Your task to perform on an android device: Open calendar and show me the second week of next month Image 0: 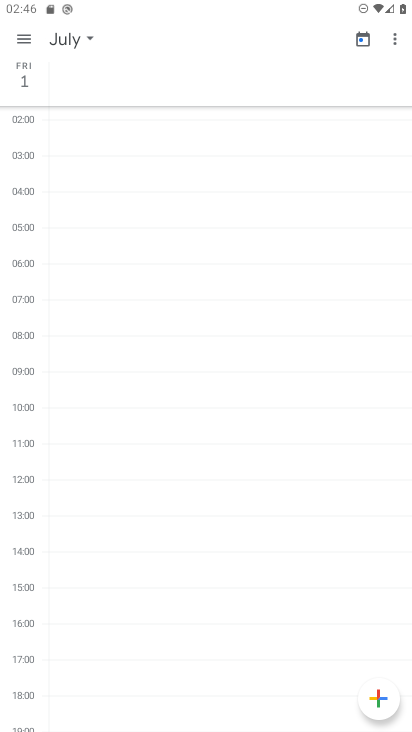
Step 0: press home button
Your task to perform on an android device: Open calendar and show me the second week of next month Image 1: 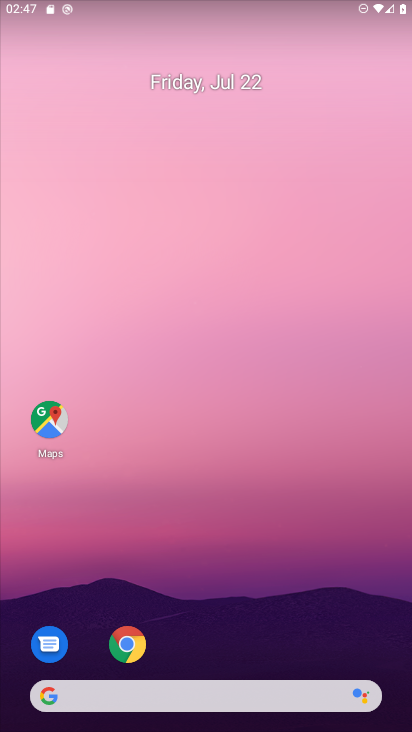
Step 1: drag from (183, 722) to (236, 103)
Your task to perform on an android device: Open calendar and show me the second week of next month Image 2: 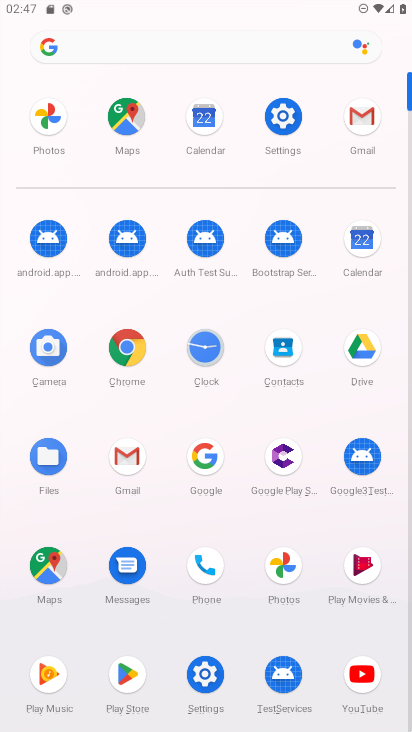
Step 2: click (362, 259)
Your task to perform on an android device: Open calendar and show me the second week of next month Image 3: 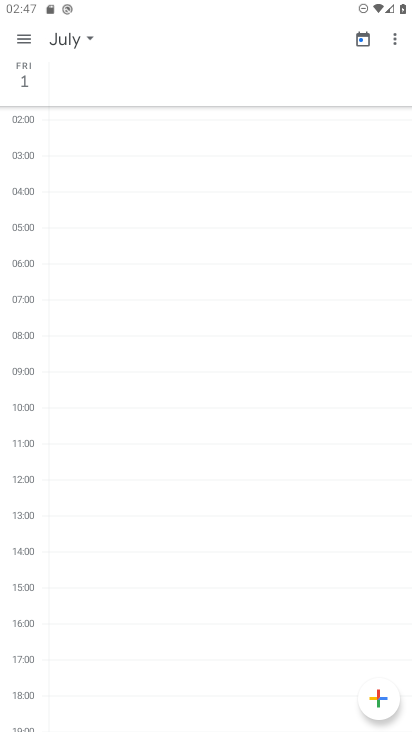
Step 3: click (64, 40)
Your task to perform on an android device: Open calendar and show me the second week of next month Image 4: 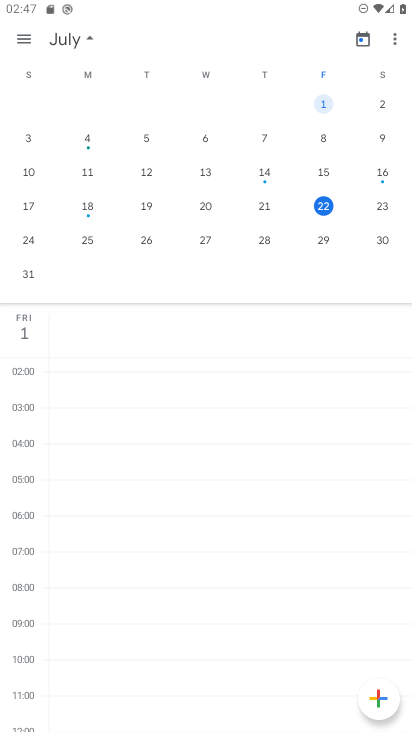
Step 4: drag from (331, 125) to (306, 0)
Your task to perform on an android device: Open calendar and show me the second week of next month Image 5: 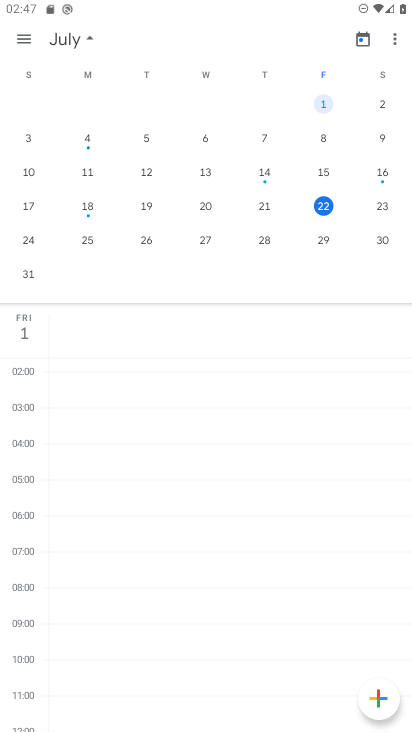
Step 5: drag from (372, 115) to (7, 125)
Your task to perform on an android device: Open calendar and show me the second week of next month Image 6: 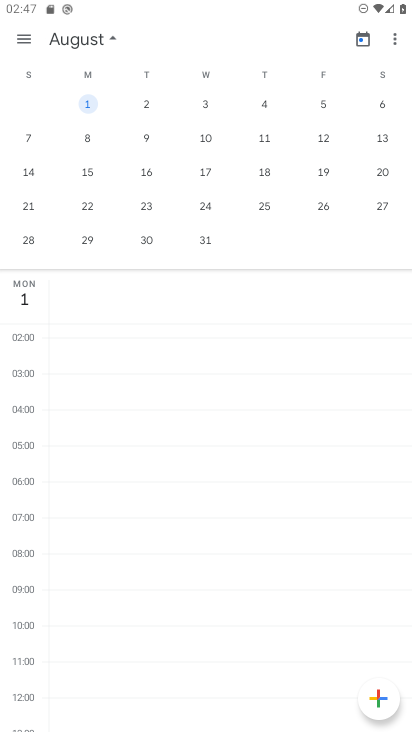
Step 6: click (23, 136)
Your task to perform on an android device: Open calendar and show me the second week of next month Image 7: 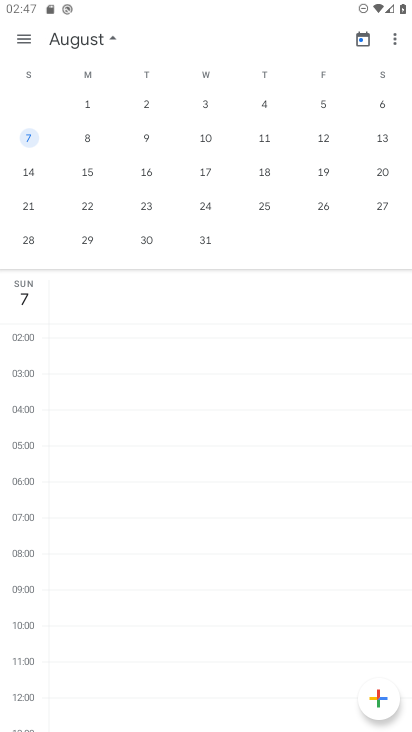
Step 7: task complete